Your task to perform on an android device: Show me productivity apps on the Play Store Image 0: 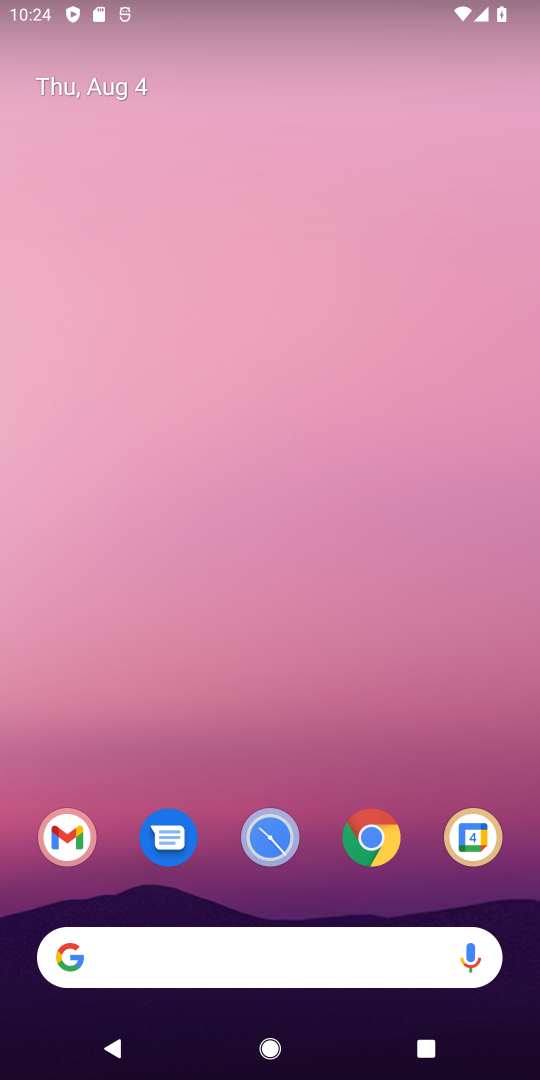
Step 0: drag from (437, 859) to (313, 107)
Your task to perform on an android device: Show me productivity apps on the Play Store Image 1: 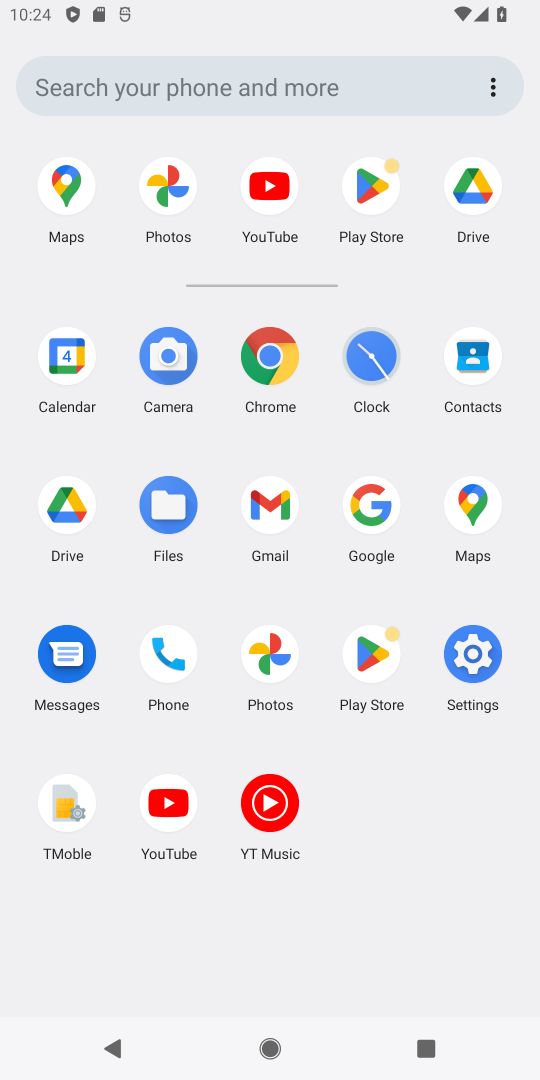
Step 1: click (363, 644)
Your task to perform on an android device: Show me productivity apps on the Play Store Image 2: 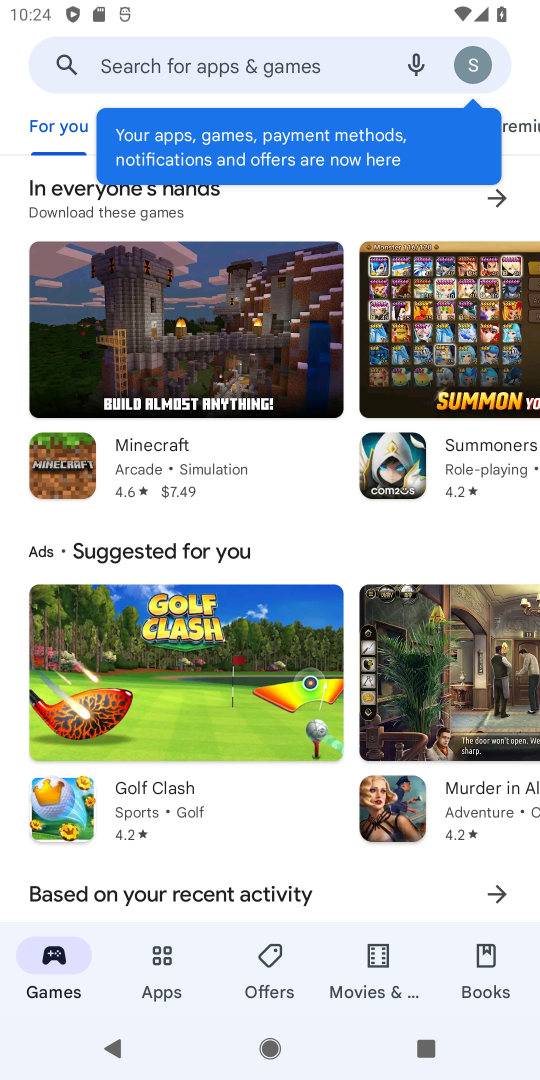
Step 2: task complete